Your task to perform on an android device: Do I have any events this weekend? Image 0: 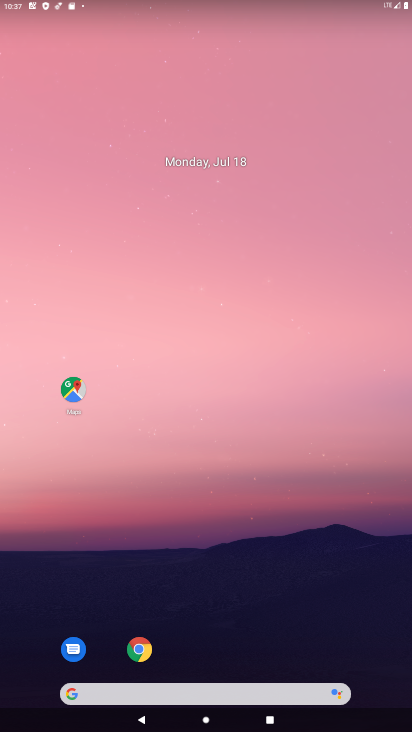
Step 0: drag from (12, 724) to (256, 723)
Your task to perform on an android device: Do I have any events this weekend? Image 1: 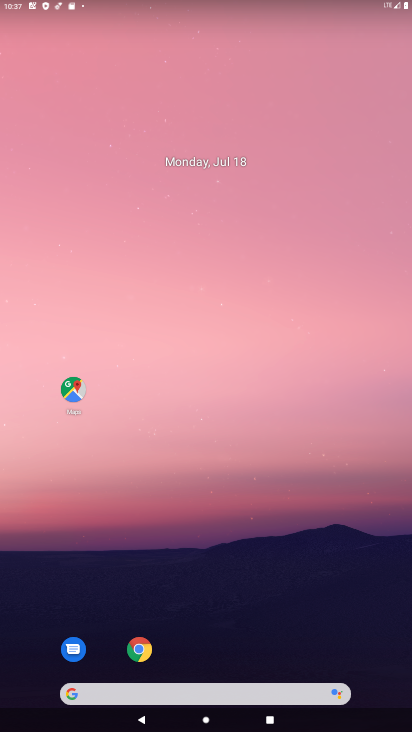
Step 1: drag from (330, 713) to (347, 14)
Your task to perform on an android device: Do I have any events this weekend? Image 2: 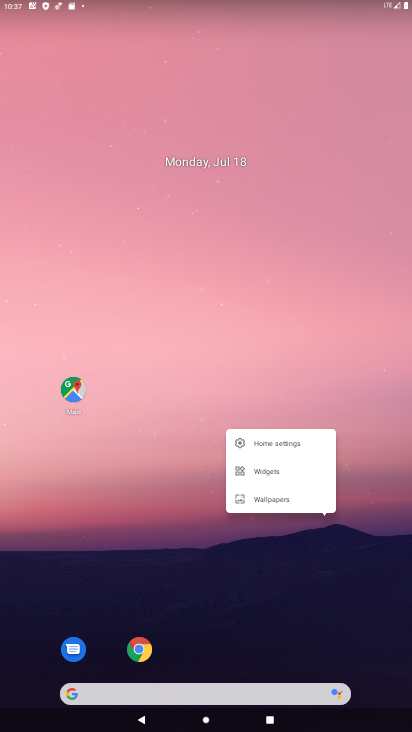
Step 2: drag from (213, 727) to (305, 115)
Your task to perform on an android device: Do I have any events this weekend? Image 3: 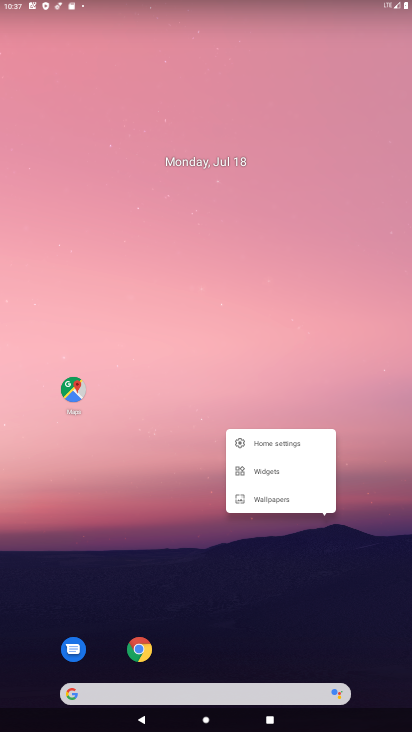
Step 3: drag from (209, 631) to (191, 99)
Your task to perform on an android device: Do I have any events this weekend? Image 4: 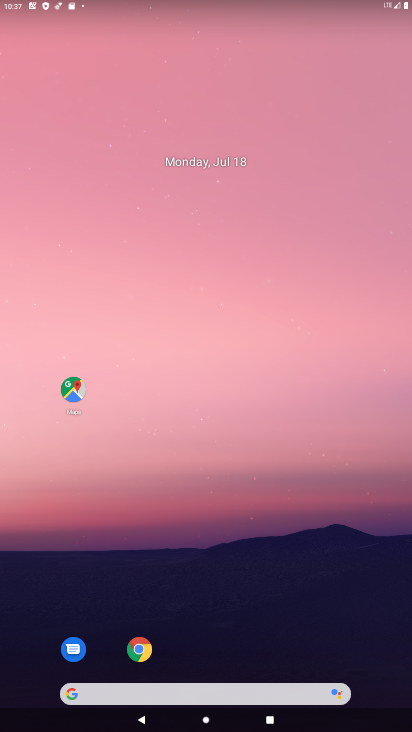
Step 4: drag from (247, 716) to (114, 12)
Your task to perform on an android device: Do I have any events this weekend? Image 5: 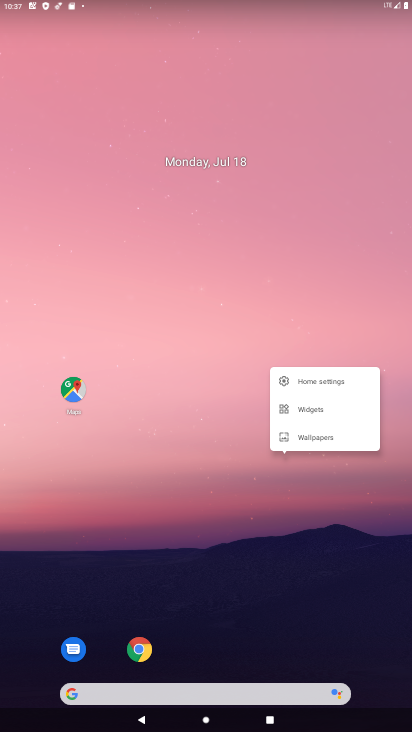
Step 5: drag from (226, 715) to (211, 282)
Your task to perform on an android device: Do I have any events this weekend? Image 6: 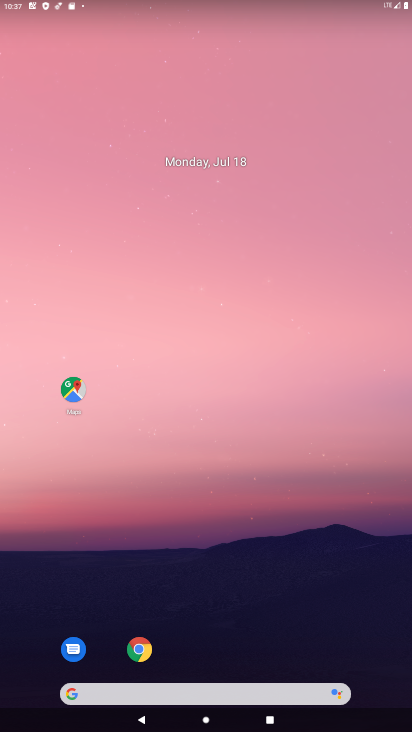
Step 6: drag from (239, 724) to (231, 74)
Your task to perform on an android device: Do I have any events this weekend? Image 7: 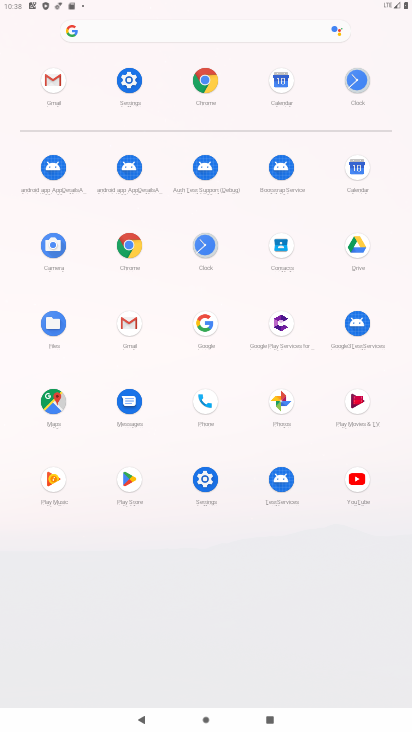
Step 7: click (353, 164)
Your task to perform on an android device: Do I have any events this weekend? Image 8: 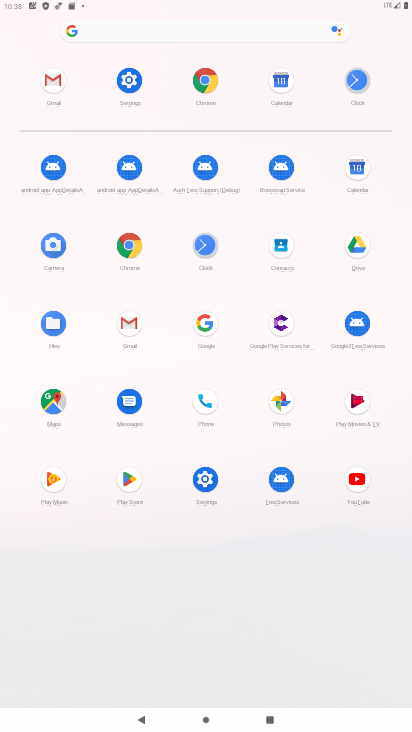
Step 8: click (353, 164)
Your task to perform on an android device: Do I have any events this weekend? Image 9: 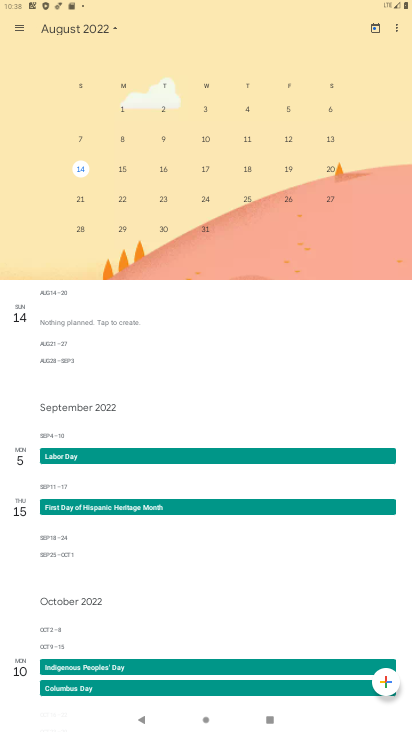
Step 9: click (74, 27)
Your task to perform on an android device: Do I have any events this weekend? Image 10: 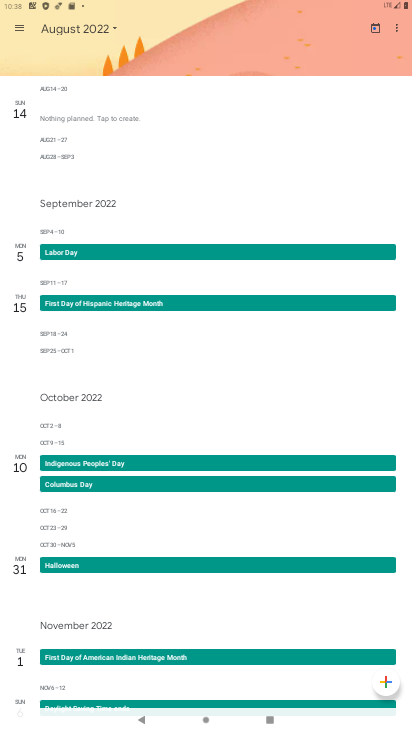
Step 10: click (74, 27)
Your task to perform on an android device: Do I have any events this weekend? Image 11: 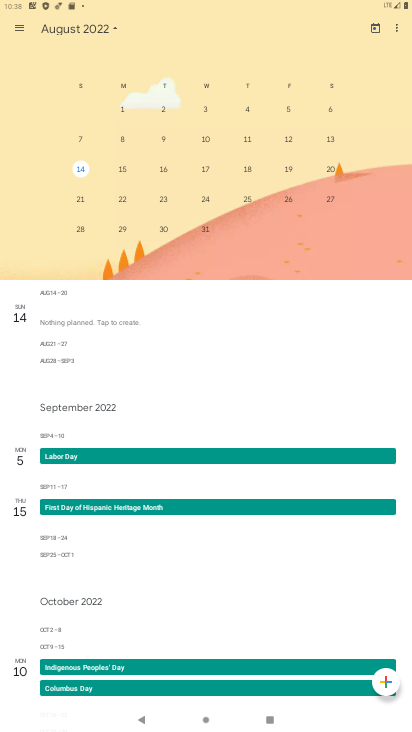
Step 11: task complete